Your task to perform on an android device: set the stopwatch Image 0: 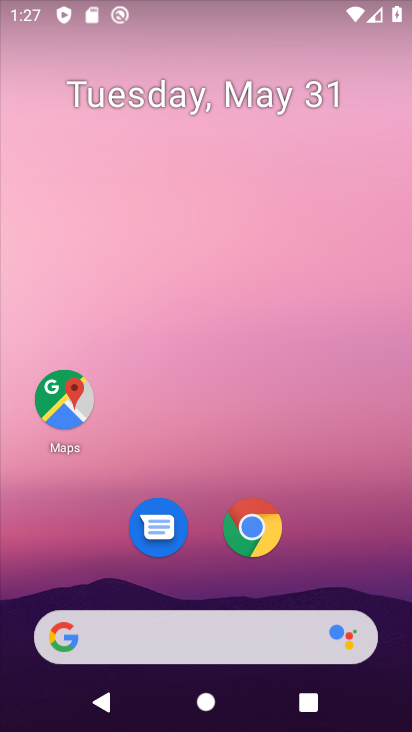
Step 0: drag from (172, 729) to (169, 79)
Your task to perform on an android device: set the stopwatch Image 1: 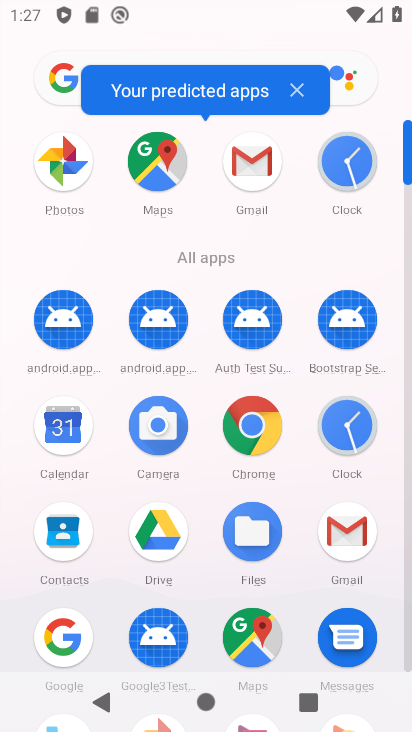
Step 1: click (332, 165)
Your task to perform on an android device: set the stopwatch Image 2: 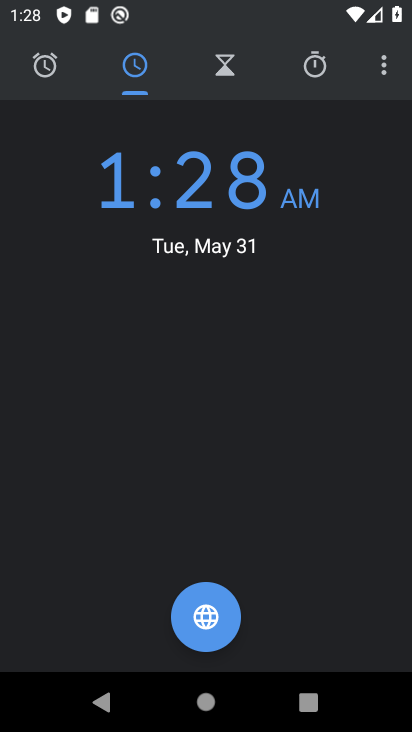
Step 2: click (311, 77)
Your task to perform on an android device: set the stopwatch Image 3: 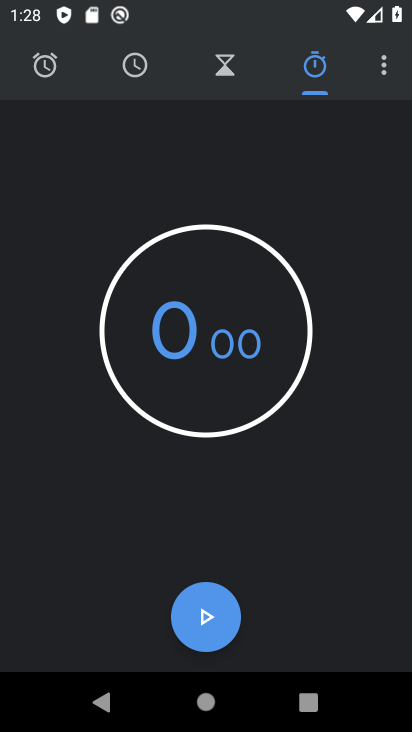
Step 3: click (217, 638)
Your task to perform on an android device: set the stopwatch Image 4: 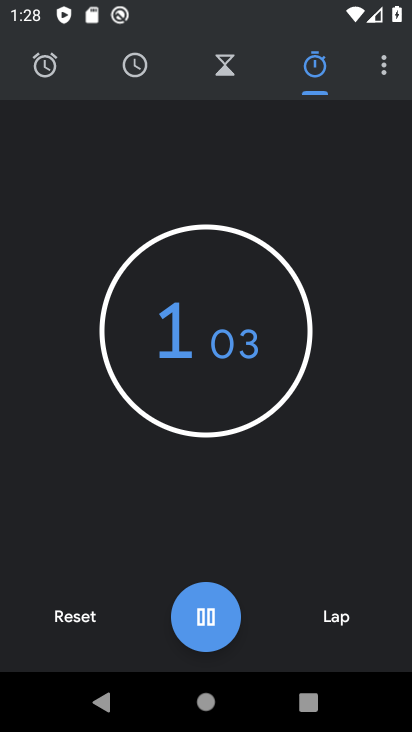
Step 4: click (211, 637)
Your task to perform on an android device: set the stopwatch Image 5: 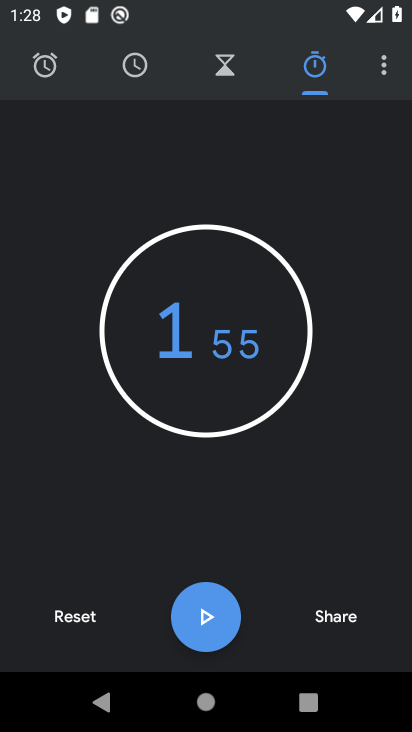
Step 5: task complete